Your task to perform on an android device: Open maps Image 0: 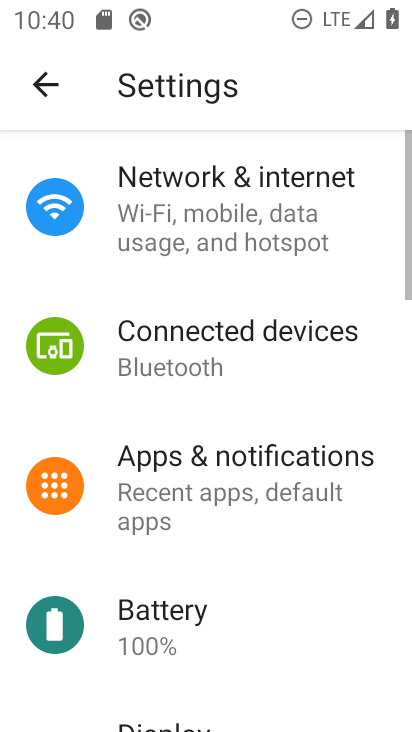
Step 0: press home button
Your task to perform on an android device: Open maps Image 1: 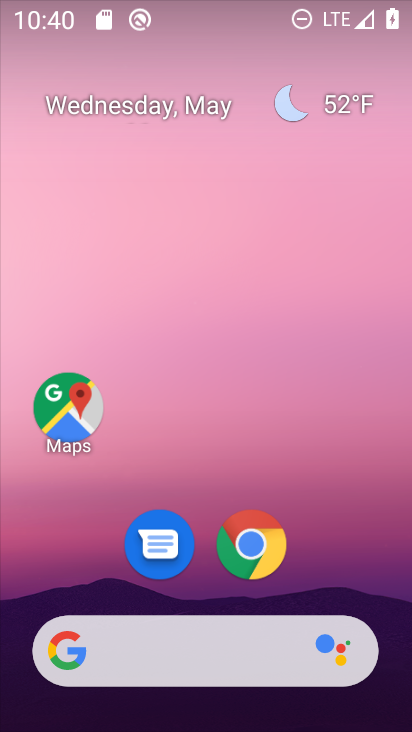
Step 1: click (109, 396)
Your task to perform on an android device: Open maps Image 2: 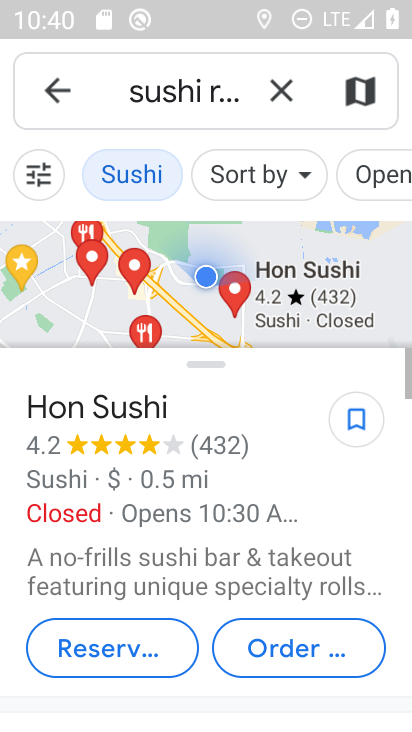
Step 2: task complete